Your task to perform on an android device: delete location history Image 0: 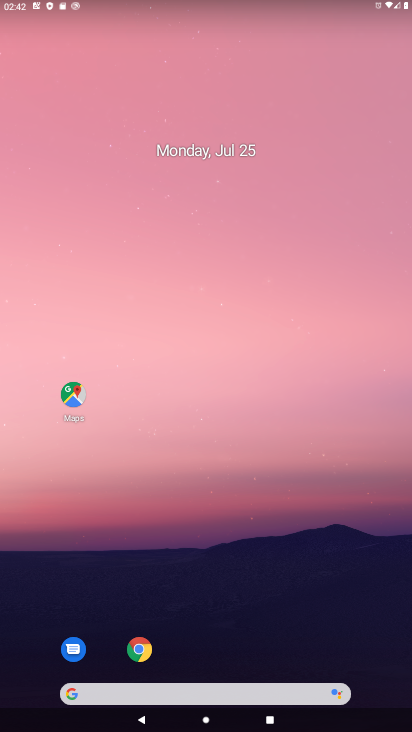
Step 0: click (74, 395)
Your task to perform on an android device: delete location history Image 1: 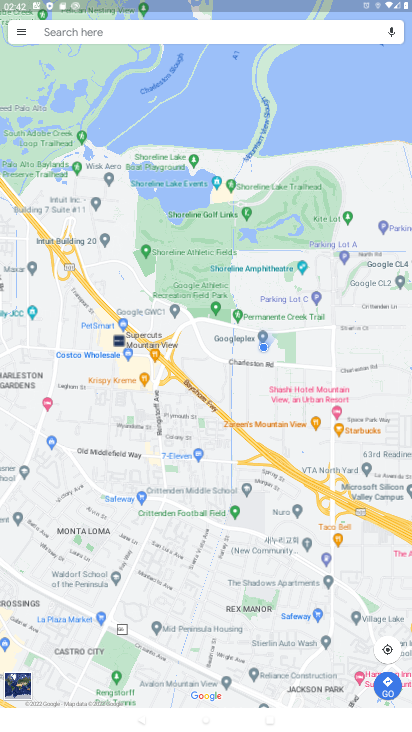
Step 1: click (17, 33)
Your task to perform on an android device: delete location history Image 2: 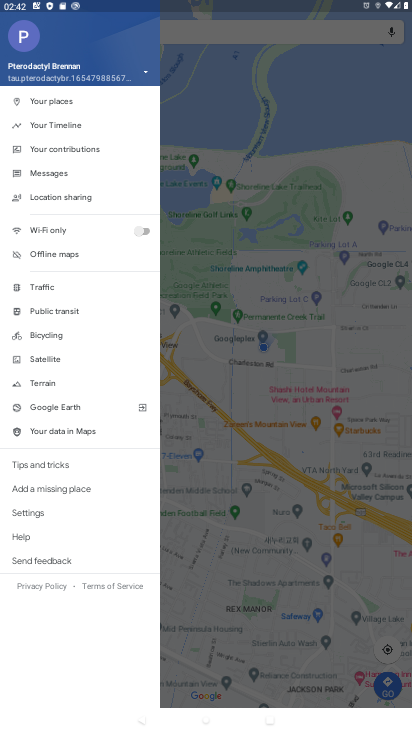
Step 2: click (30, 511)
Your task to perform on an android device: delete location history Image 3: 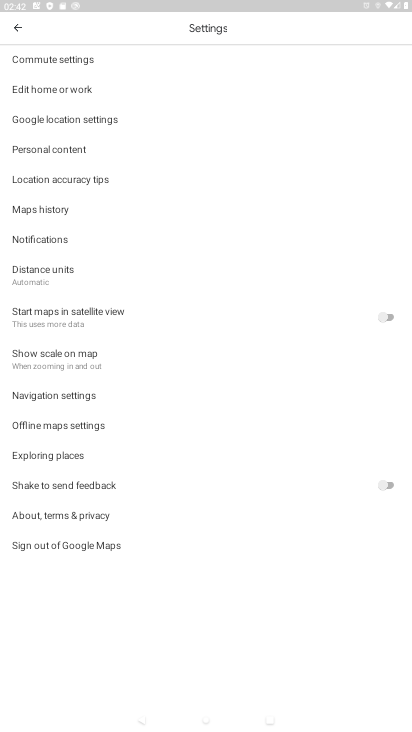
Step 3: click (36, 151)
Your task to perform on an android device: delete location history Image 4: 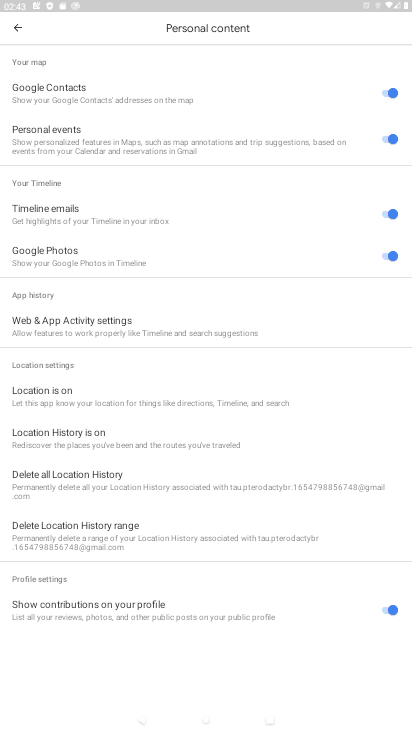
Step 4: click (61, 474)
Your task to perform on an android device: delete location history Image 5: 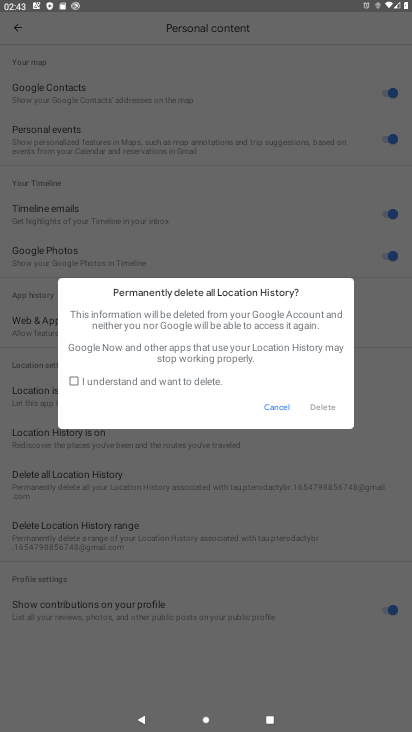
Step 5: click (74, 379)
Your task to perform on an android device: delete location history Image 6: 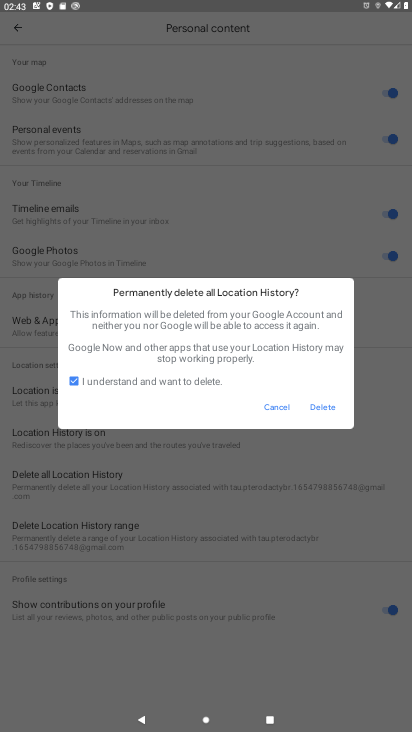
Step 6: click (326, 404)
Your task to perform on an android device: delete location history Image 7: 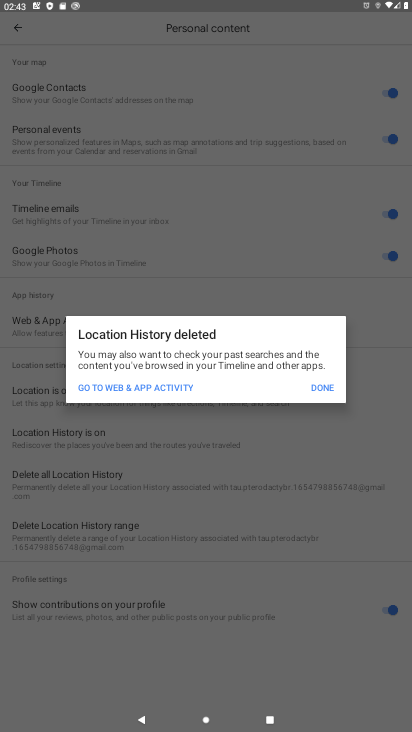
Step 7: click (321, 386)
Your task to perform on an android device: delete location history Image 8: 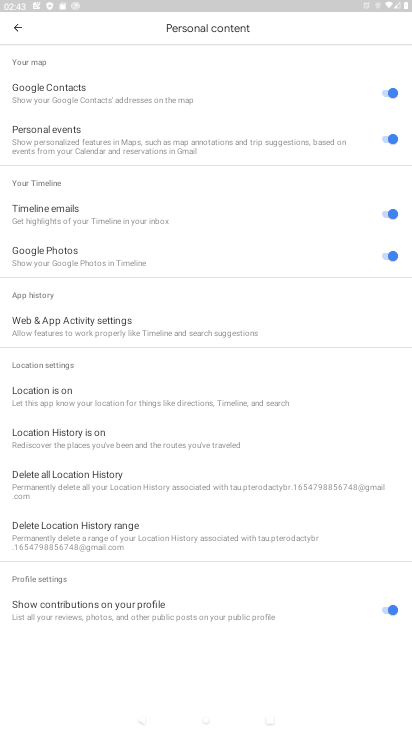
Step 8: task complete